Your task to perform on an android device: turn off wifi Image 0: 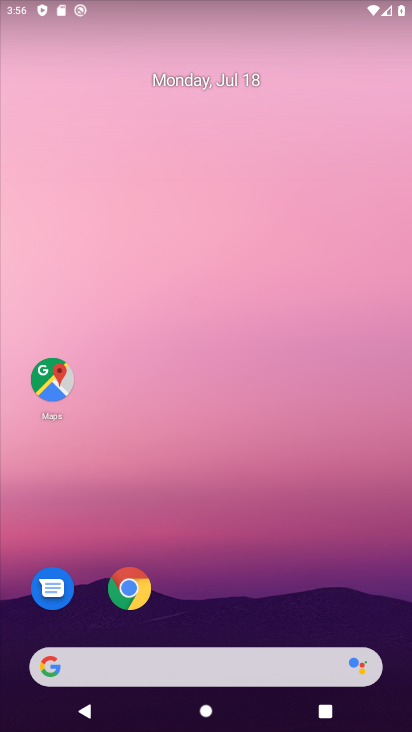
Step 0: drag from (331, 4) to (290, 707)
Your task to perform on an android device: turn off wifi Image 1: 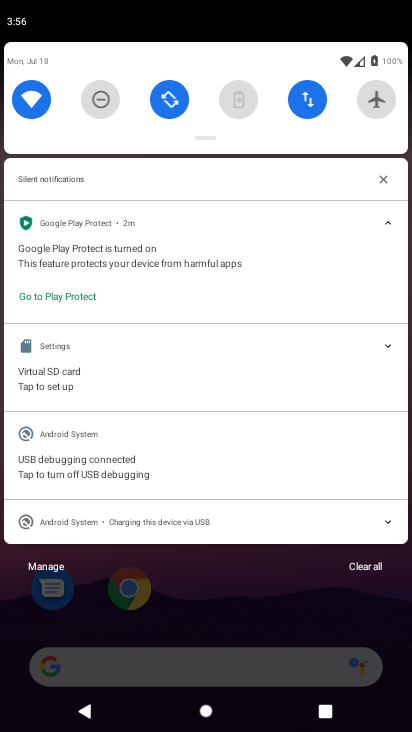
Step 1: click (24, 110)
Your task to perform on an android device: turn off wifi Image 2: 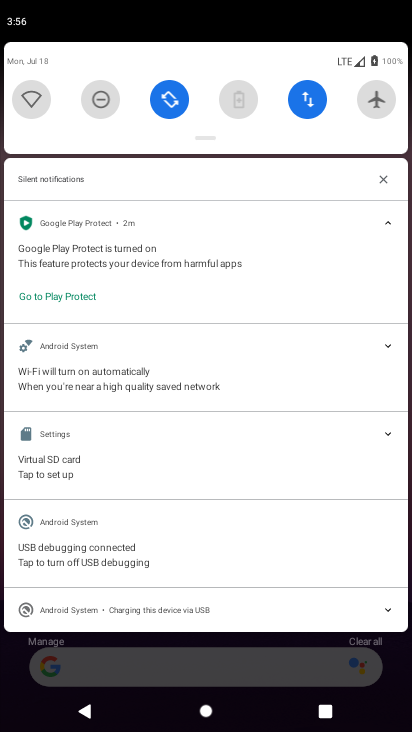
Step 2: task complete